Your task to perform on an android device: Open the calendar app, open the side menu, and click the "Day" option Image 0: 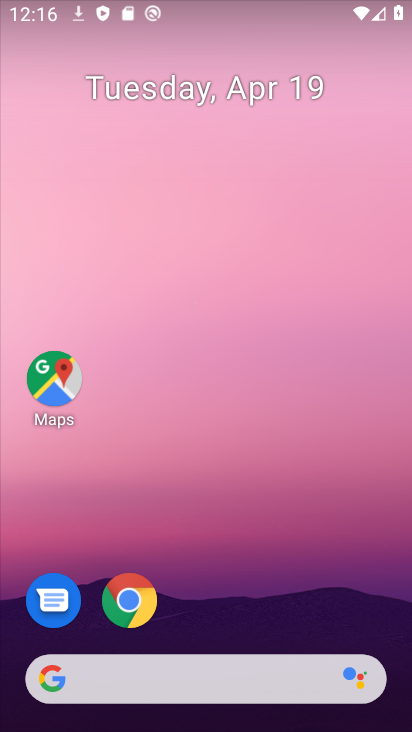
Step 0: drag from (216, 638) to (296, 51)
Your task to perform on an android device: Open the calendar app, open the side menu, and click the "Day" option Image 1: 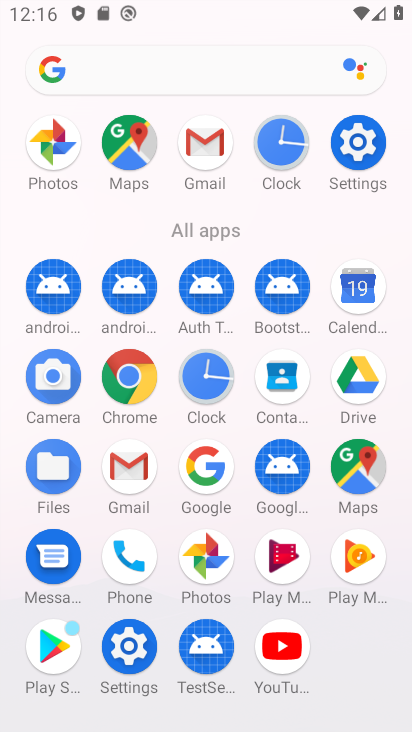
Step 1: click (350, 288)
Your task to perform on an android device: Open the calendar app, open the side menu, and click the "Day" option Image 2: 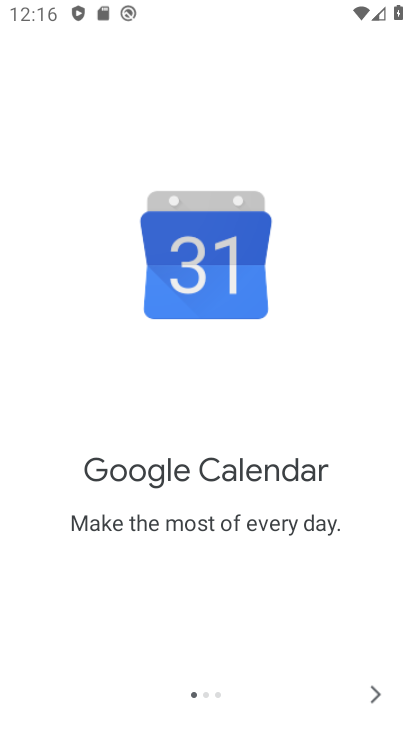
Step 2: click (374, 691)
Your task to perform on an android device: Open the calendar app, open the side menu, and click the "Day" option Image 3: 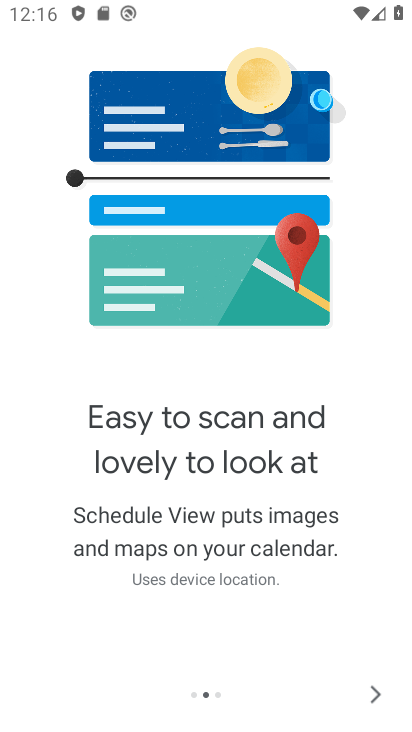
Step 3: click (367, 683)
Your task to perform on an android device: Open the calendar app, open the side menu, and click the "Day" option Image 4: 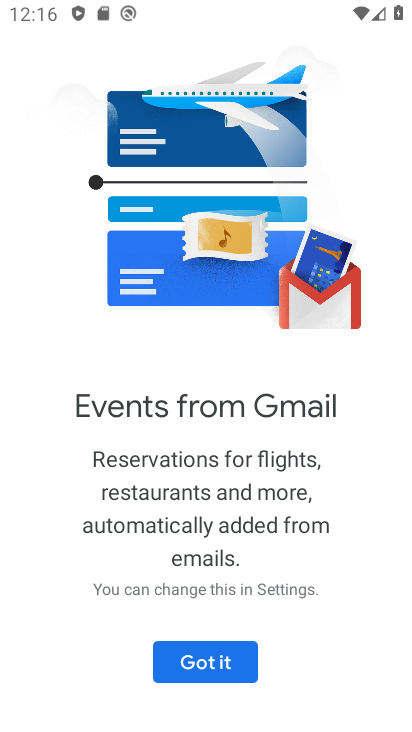
Step 4: click (239, 663)
Your task to perform on an android device: Open the calendar app, open the side menu, and click the "Day" option Image 5: 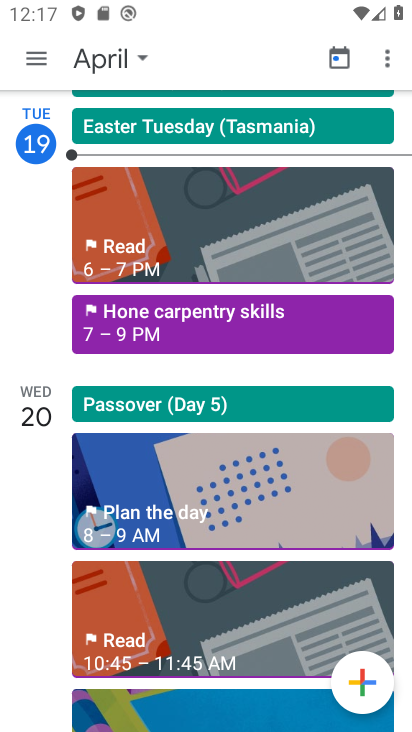
Step 5: click (42, 62)
Your task to perform on an android device: Open the calendar app, open the side menu, and click the "Day" option Image 6: 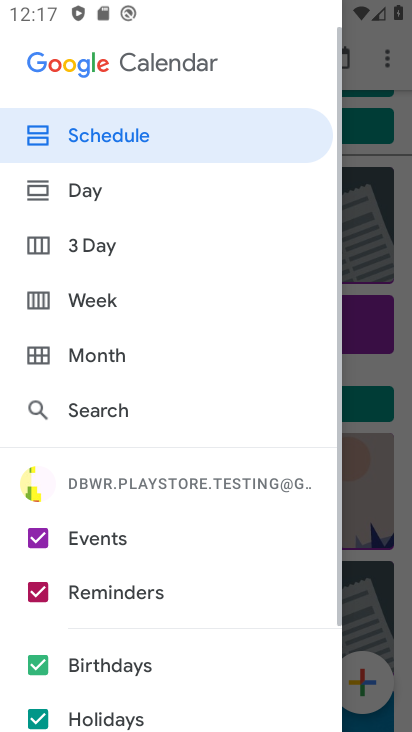
Step 6: click (73, 177)
Your task to perform on an android device: Open the calendar app, open the side menu, and click the "Day" option Image 7: 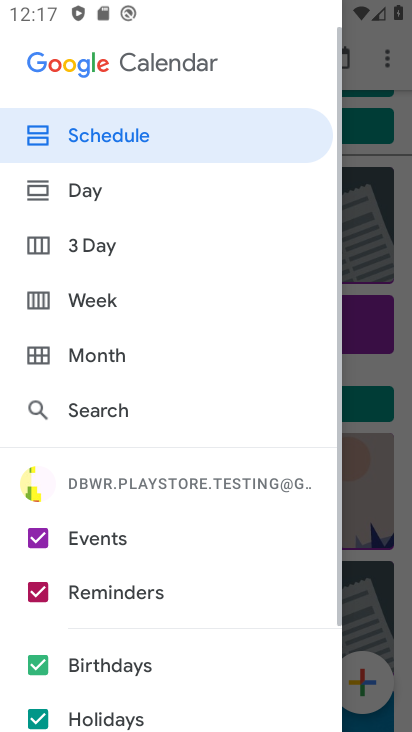
Step 7: click (93, 184)
Your task to perform on an android device: Open the calendar app, open the side menu, and click the "Day" option Image 8: 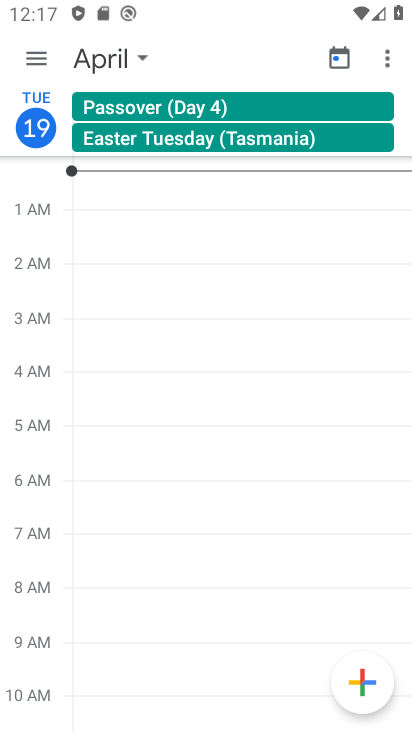
Step 8: task complete